Your task to perform on an android device: show emergency info Image 0: 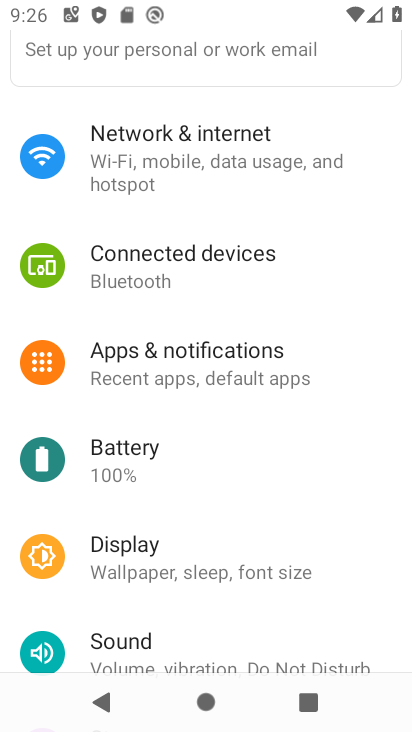
Step 0: drag from (297, 644) to (293, 186)
Your task to perform on an android device: show emergency info Image 1: 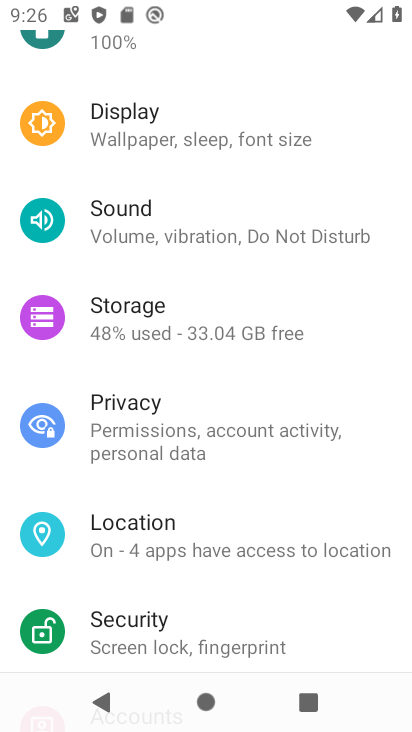
Step 1: drag from (264, 599) to (264, 229)
Your task to perform on an android device: show emergency info Image 2: 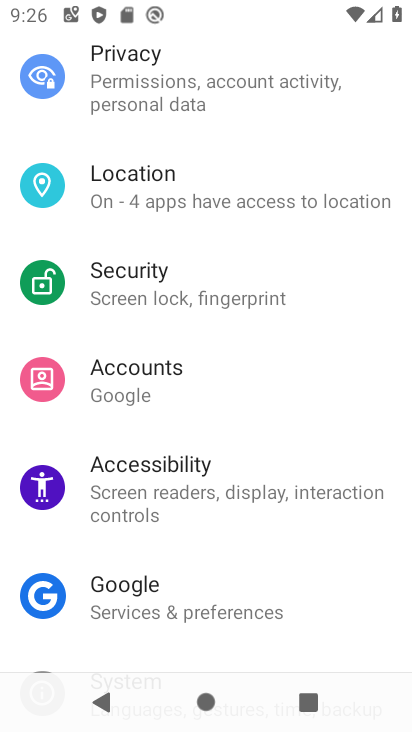
Step 2: drag from (316, 617) to (306, 276)
Your task to perform on an android device: show emergency info Image 3: 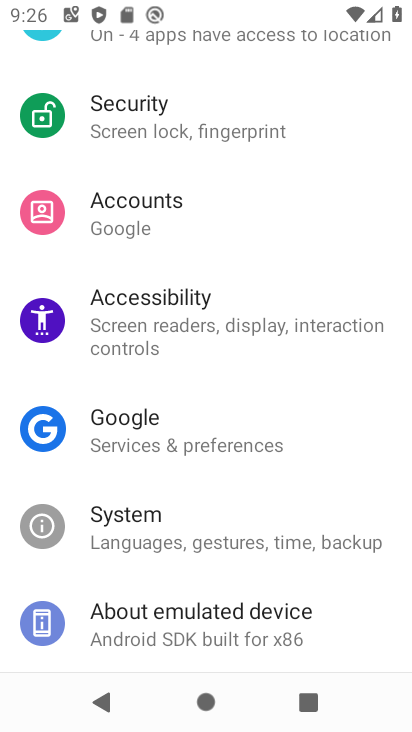
Step 3: click (284, 624)
Your task to perform on an android device: show emergency info Image 4: 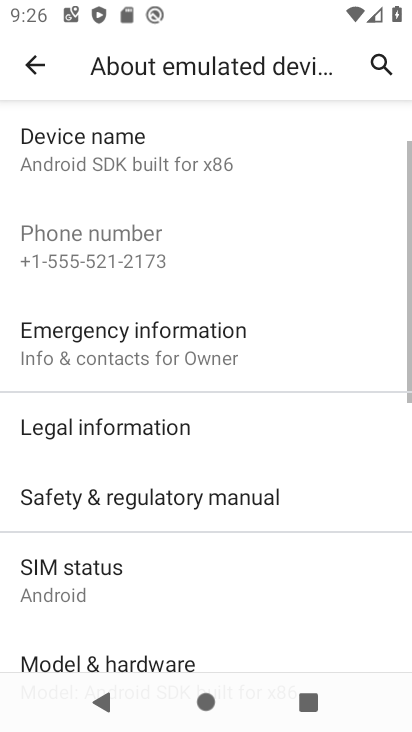
Step 4: click (205, 346)
Your task to perform on an android device: show emergency info Image 5: 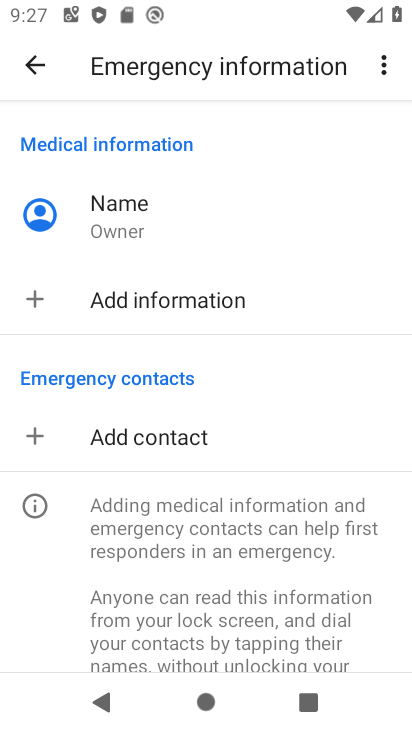
Step 5: task complete